Your task to perform on an android device: change notification settings in the gmail app Image 0: 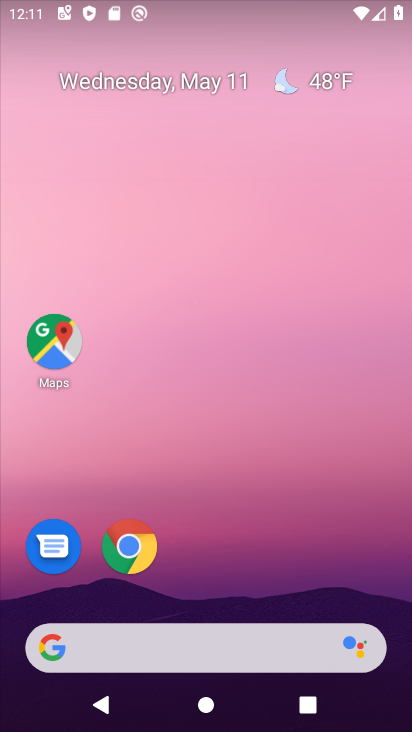
Step 0: drag from (209, 650) to (299, 210)
Your task to perform on an android device: change notification settings in the gmail app Image 1: 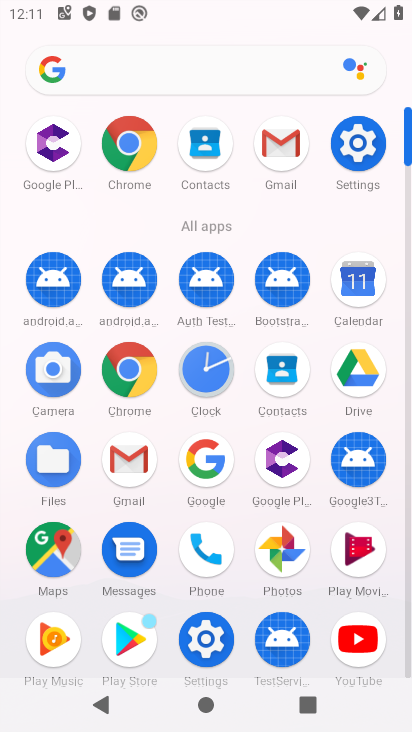
Step 1: click (120, 462)
Your task to perform on an android device: change notification settings in the gmail app Image 2: 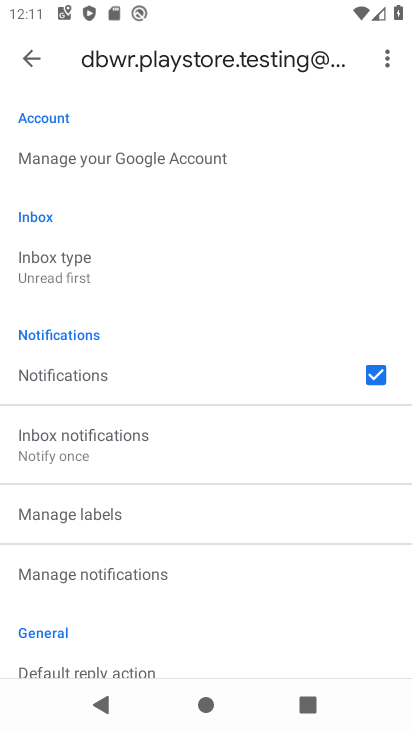
Step 2: click (78, 370)
Your task to perform on an android device: change notification settings in the gmail app Image 3: 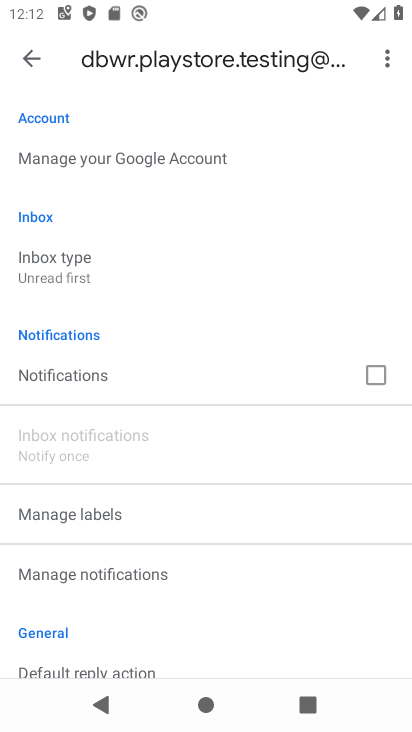
Step 3: task complete